Your task to perform on an android device: Go to Amazon Image 0: 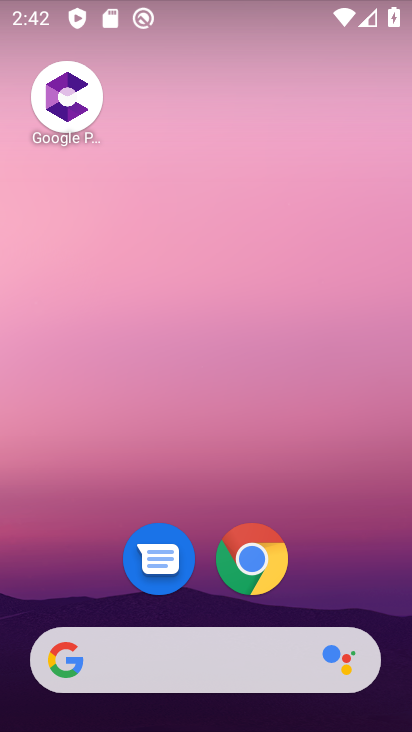
Step 0: drag from (211, 597) to (283, 7)
Your task to perform on an android device: Go to Amazon Image 1: 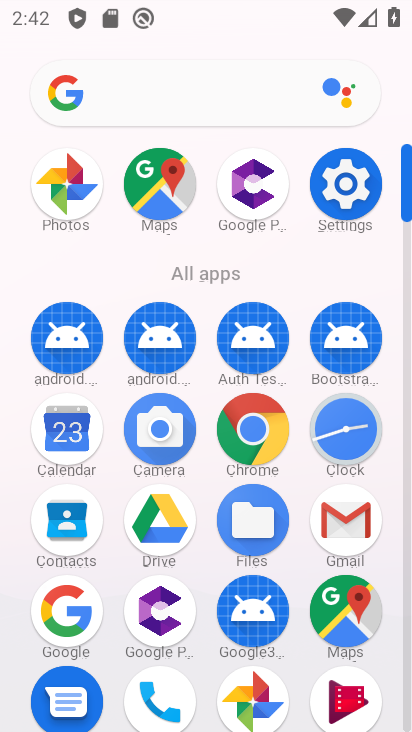
Step 1: drag from (178, 474) to (181, 177)
Your task to perform on an android device: Go to Amazon Image 2: 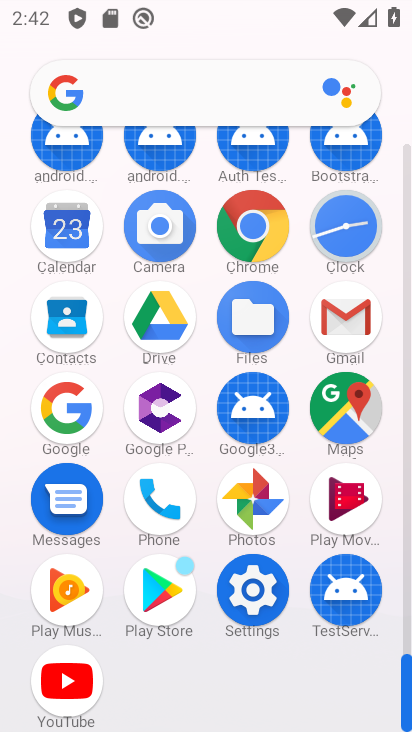
Step 2: click (258, 245)
Your task to perform on an android device: Go to Amazon Image 3: 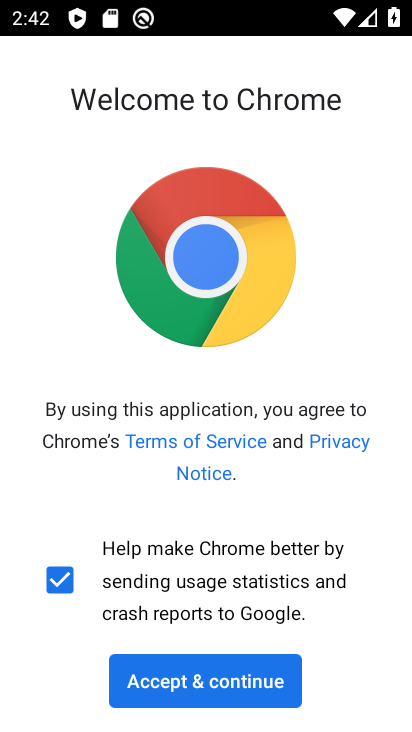
Step 3: click (223, 688)
Your task to perform on an android device: Go to Amazon Image 4: 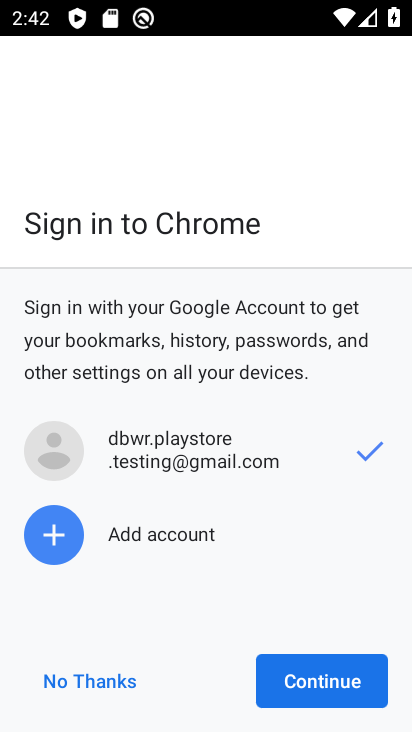
Step 4: click (343, 659)
Your task to perform on an android device: Go to Amazon Image 5: 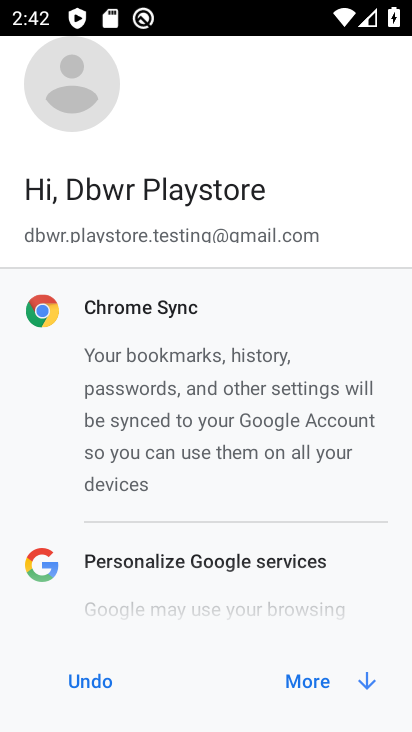
Step 5: click (316, 682)
Your task to perform on an android device: Go to Amazon Image 6: 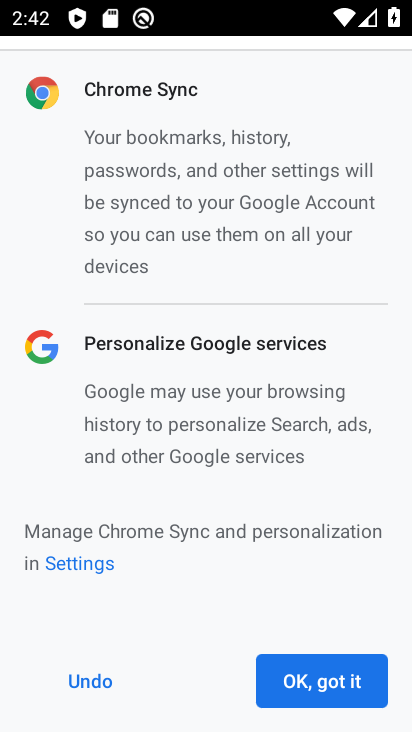
Step 6: click (316, 682)
Your task to perform on an android device: Go to Amazon Image 7: 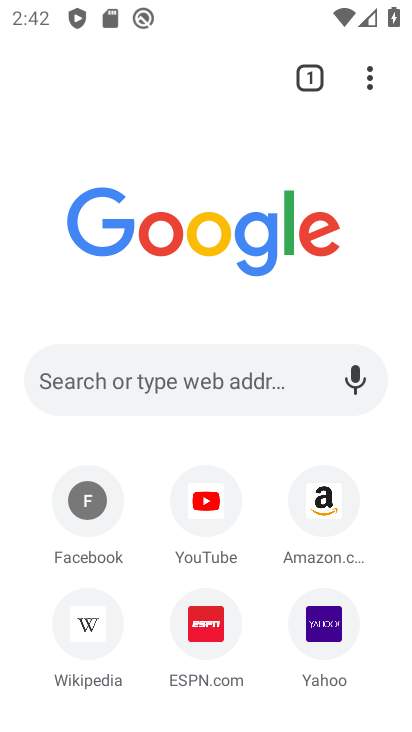
Step 7: click (337, 515)
Your task to perform on an android device: Go to Amazon Image 8: 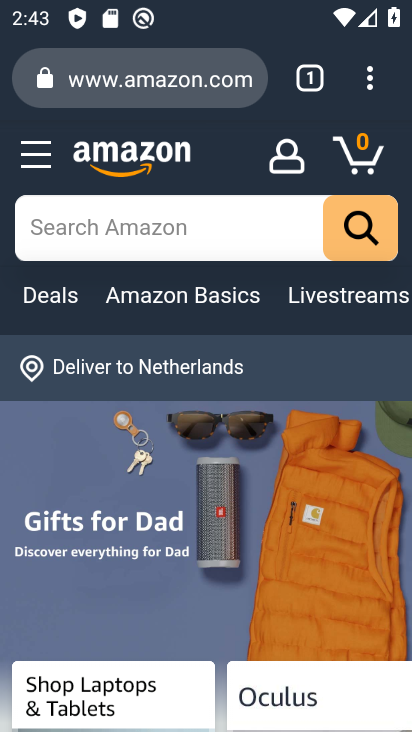
Step 8: task complete